Your task to perform on an android device: set the timer Image 0: 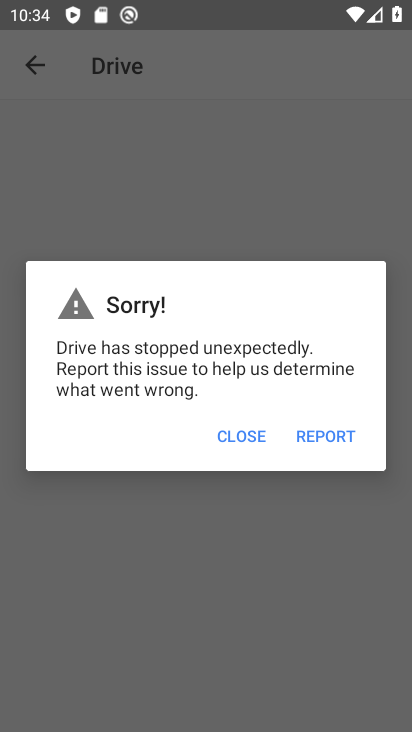
Step 0: press back button
Your task to perform on an android device: set the timer Image 1: 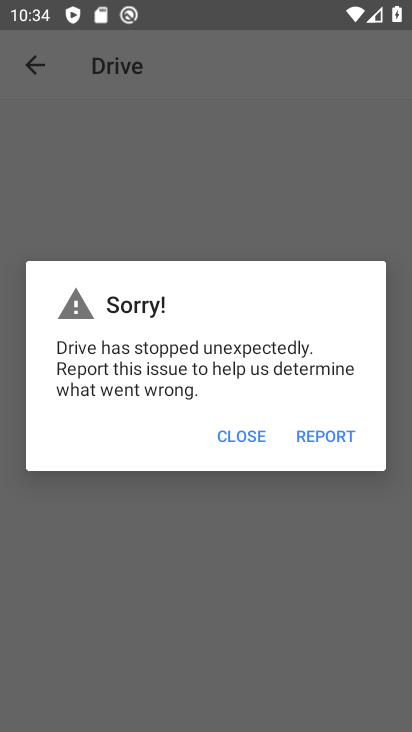
Step 1: press home button
Your task to perform on an android device: set the timer Image 2: 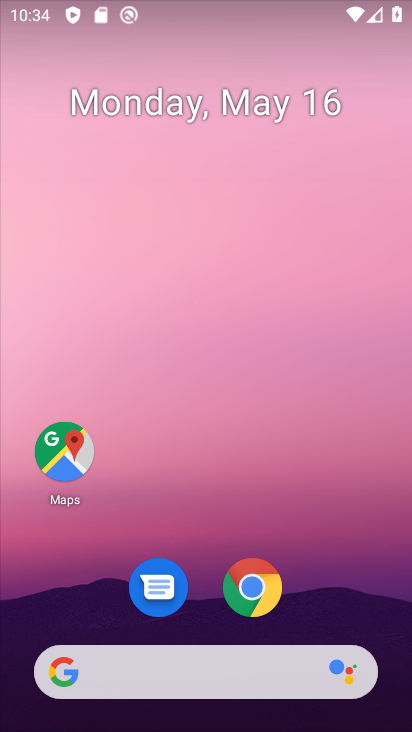
Step 2: drag from (337, 566) to (285, 47)
Your task to perform on an android device: set the timer Image 3: 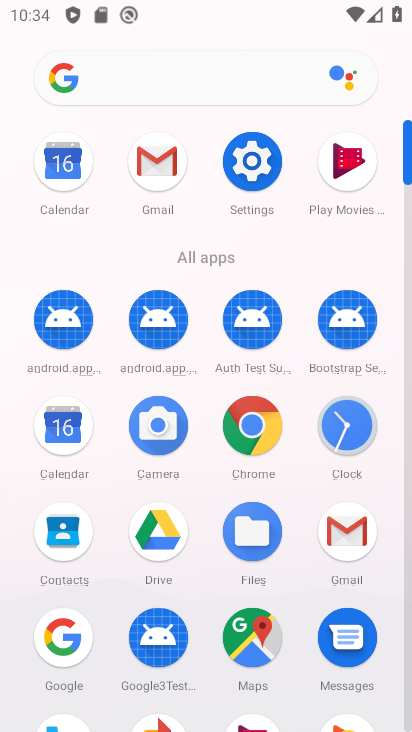
Step 3: drag from (9, 548) to (27, 261)
Your task to perform on an android device: set the timer Image 4: 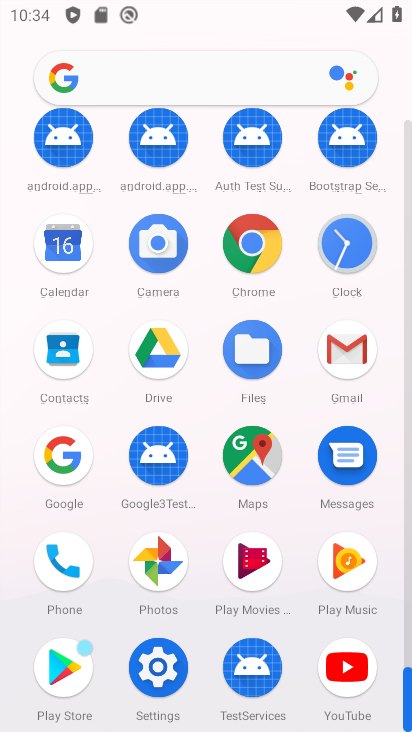
Step 4: click (342, 232)
Your task to perform on an android device: set the timer Image 5: 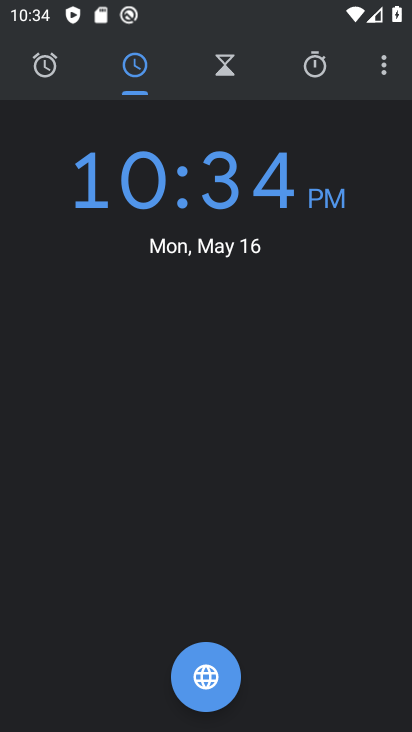
Step 5: click (230, 77)
Your task to perform on an android device: set the timer Image 6: 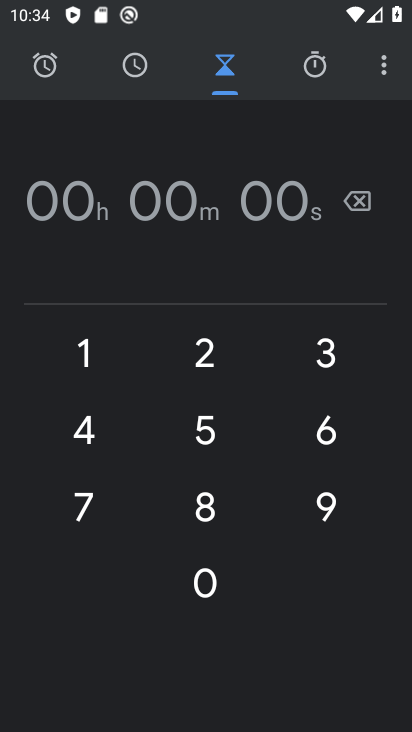
Step 6: click (328, 361)
Your task to perform on an android device: set the timer Image 7: 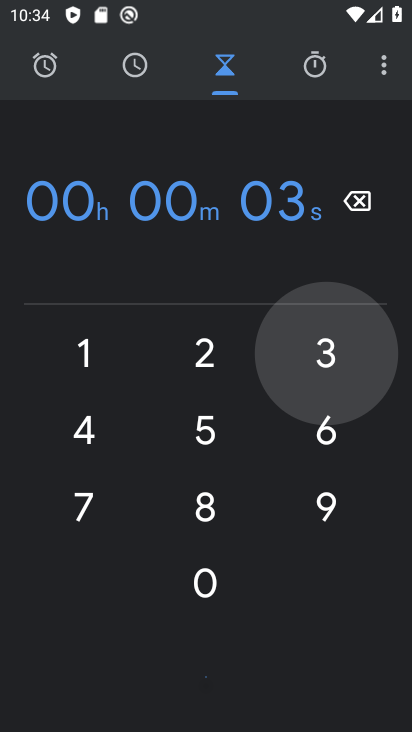
Step 7: click (321, 431)
Your task to perform on an android device: set the timer Image 8: 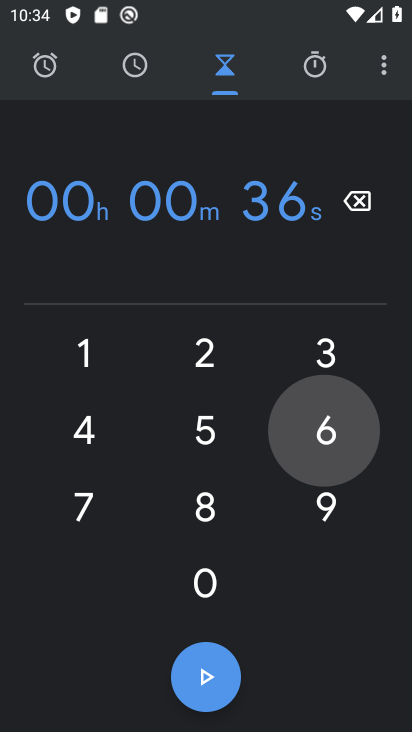
Step 8: click (320, 485)
Your task to perform on an android device: set the timer Image 9: 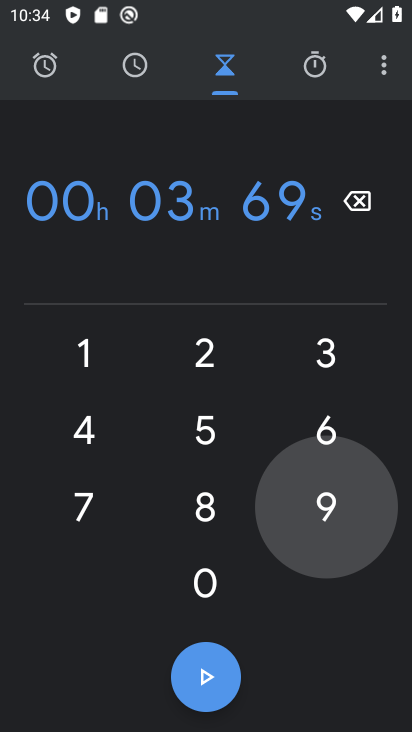
Step 9: click (204, 490)
Your task to perform on an android device: set the timer Image 10: 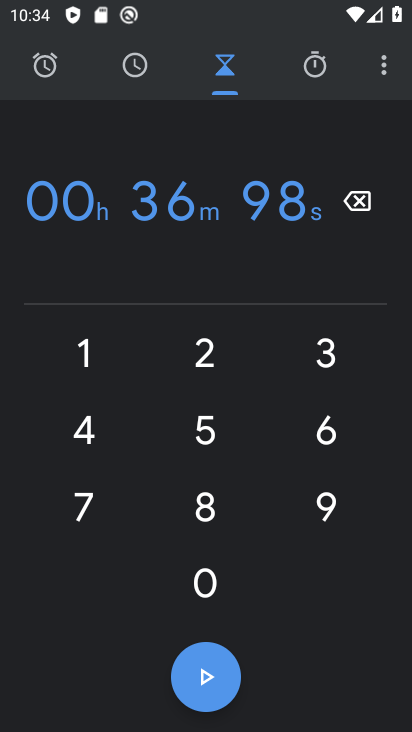
Step 10: click (196, 693)
Your task to perform on an android device: set the timer Image 11: 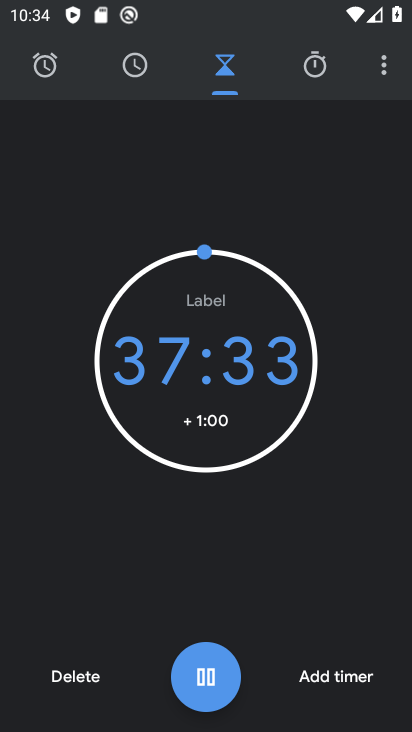
Step 11: task complete